Your task to perform on an android device: toggle notification dots Image 0: 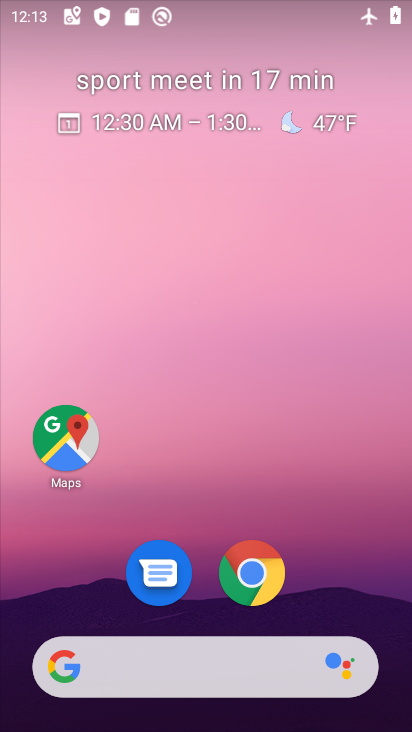
Step 0: drag from (223, 600) to (240, 255)
Your task to perform on an android device: toggle notification dots Image 1: 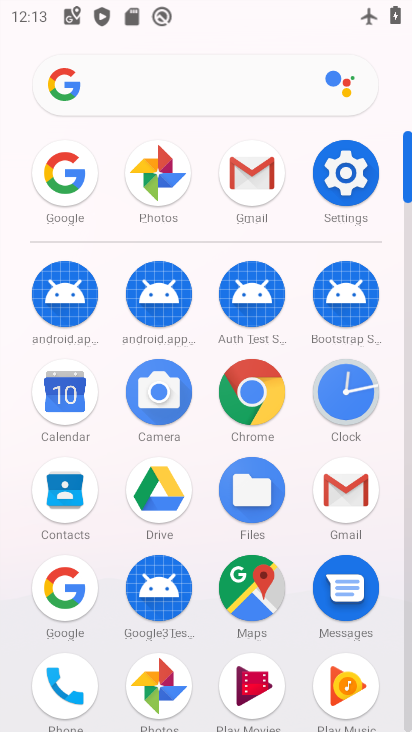
Step 1: click (348, 160)
Your task to perform on an android device: toggle notification dots Image 2: 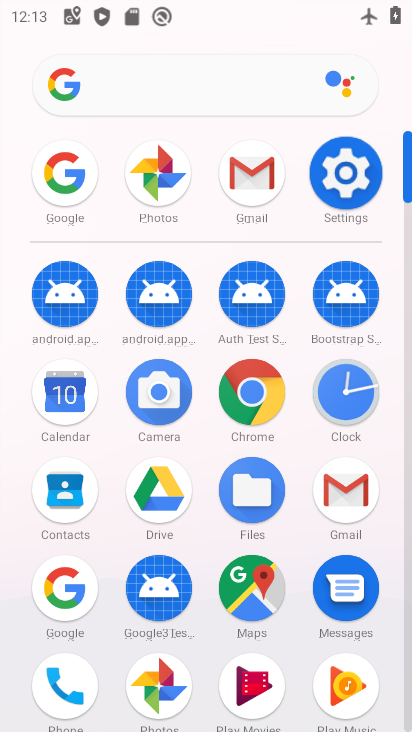
Step 2: click (348, 160)
Your task to perform on an android device: toggle notification dots Image 3: 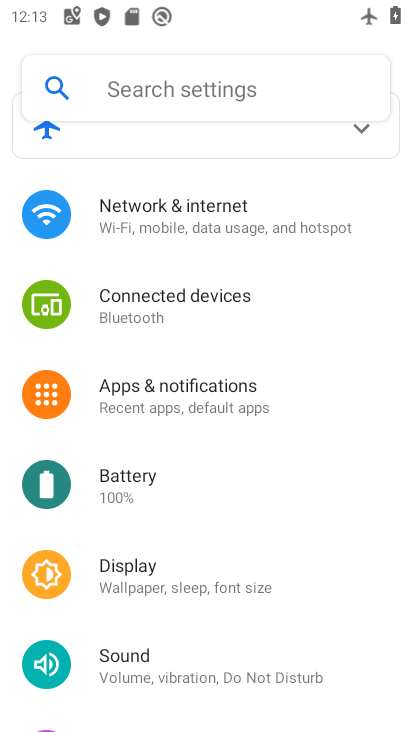
Step 3: drag from (205, 583) to (222, 260)
Your task to perform on an android device: toggle notification dots Image 4: 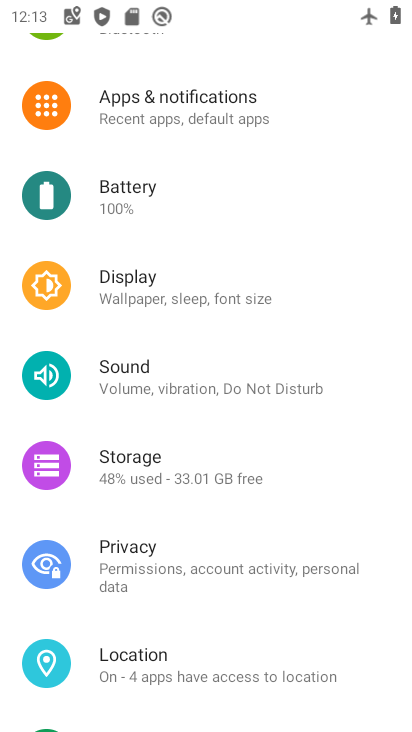
Step 4: click (244, 105)
Your task to perform on an android device: toggle notification dots Image 5: 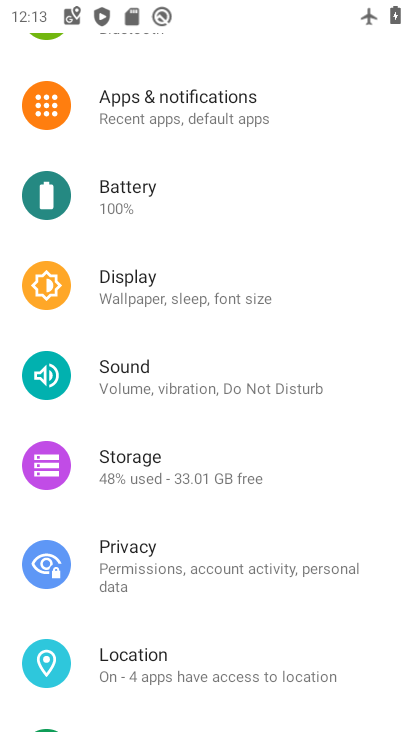
Step 5: click (244, 105)
Your task to perform on an android device: toggle notification dots Image 6: 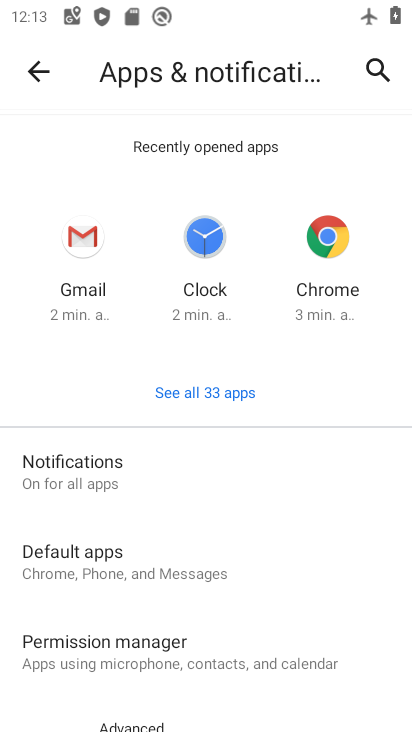
Step 6: drag from (253, 524) to (326, 206)
Your task to perform on an android device: toggle notification dots Image 7: 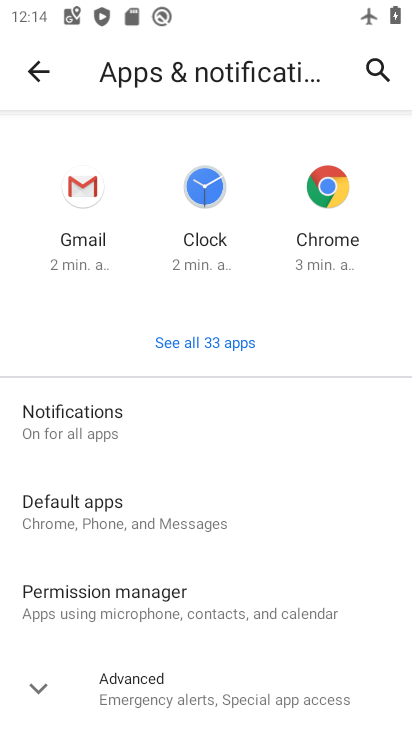
Step 7: click (162, 428)
Your task to perform on an android device: toggle notification dots Image 8: 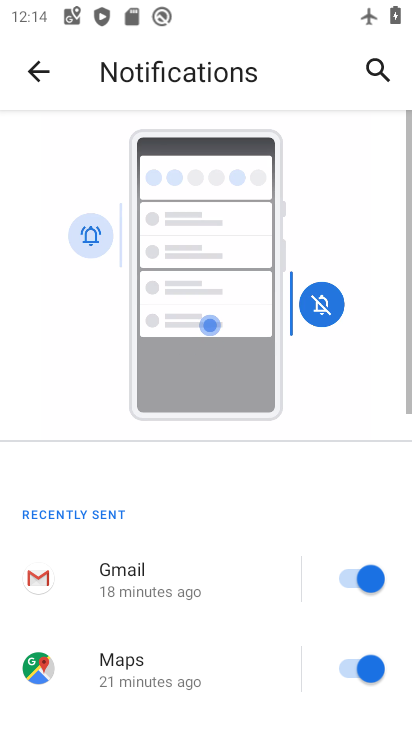
Step 8: drag from (246, 612) to (234, 279)
Your task to perform on an android device: toggle notification dots Image 9: 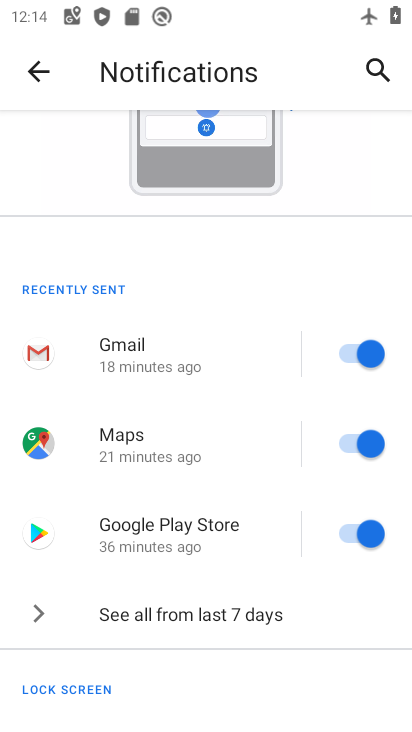
Step 9: drag from (231, 576) to (256, 229)
Your task to perform on an android device: toggle notification dots Image 10: 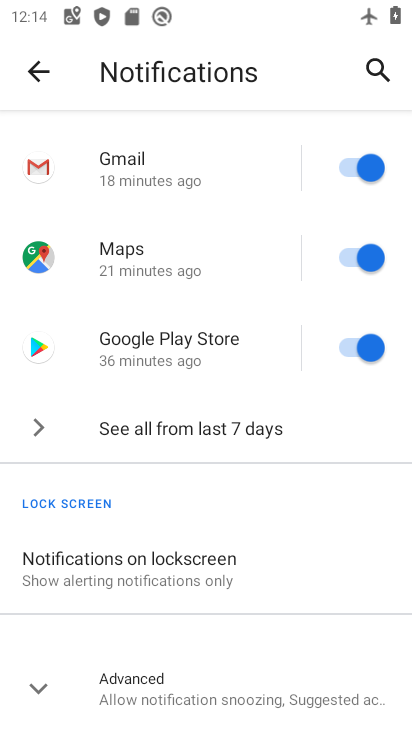
Step 10: drag from (193, 581) to (225, 389)
Your task to perform on an android device: toggle notification dots Image 11: 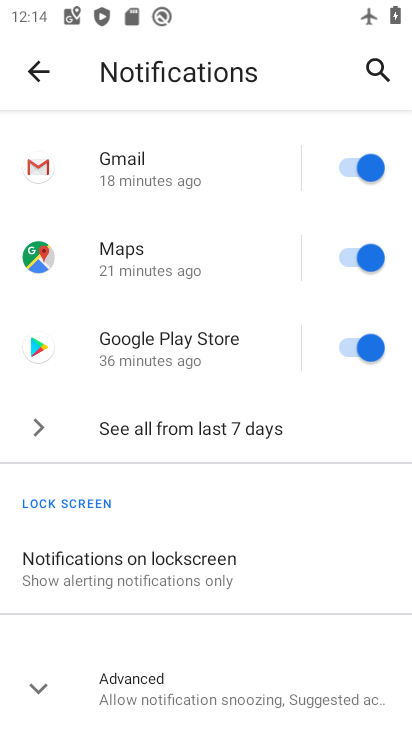
Step 11: click (198, 701)
Your task to perform on an android device: toggle notification dots Image 12: 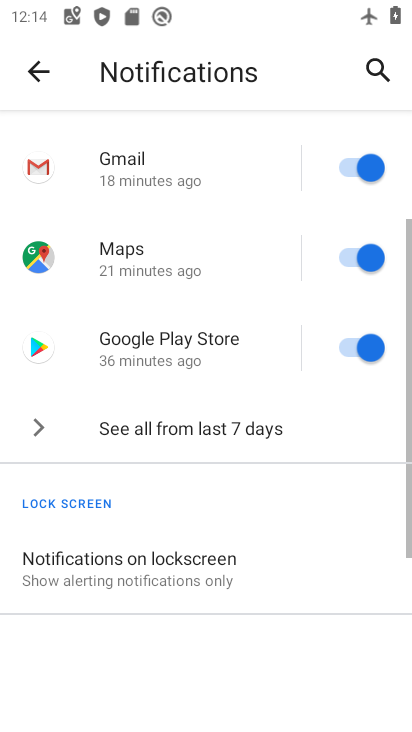
Step 12: drag from (197, 701) to (229, 360)
Your task to perform on an android device: toggle notification dots Image 13: 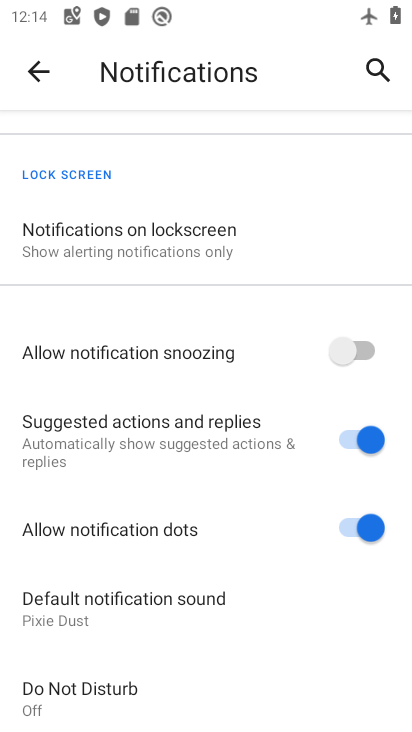
Step 13: drag from (258, 658) to (268, 488)
Your task to perform on an android device: toggle notification dots Image 14: 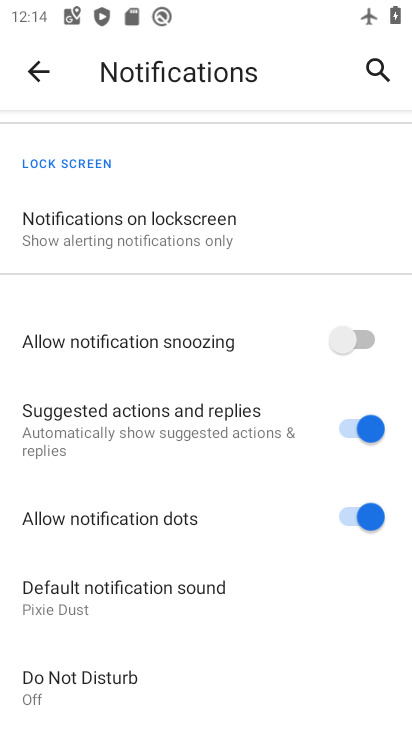
Step 14: click (360, 511)
Your task to perform on an android device: toggle notification dots Image 15: 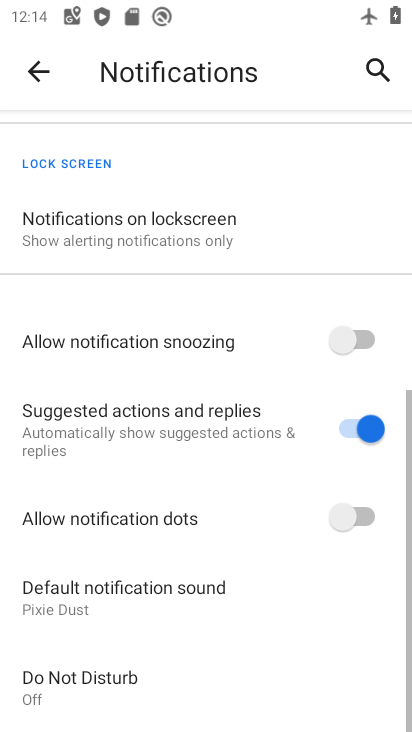
Step 15: task complete